Your task to perform on an android device: Open Android settings Image 0: 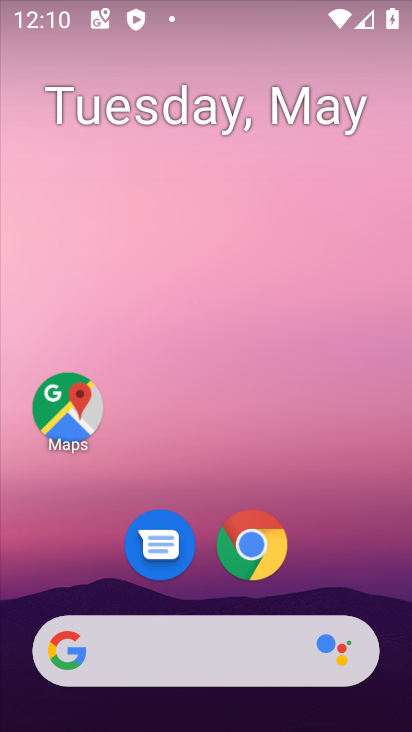
Step 0: drag from (207, 581) to (212, 4)
Your task to perform on an android device: Open Android settings Image 1: 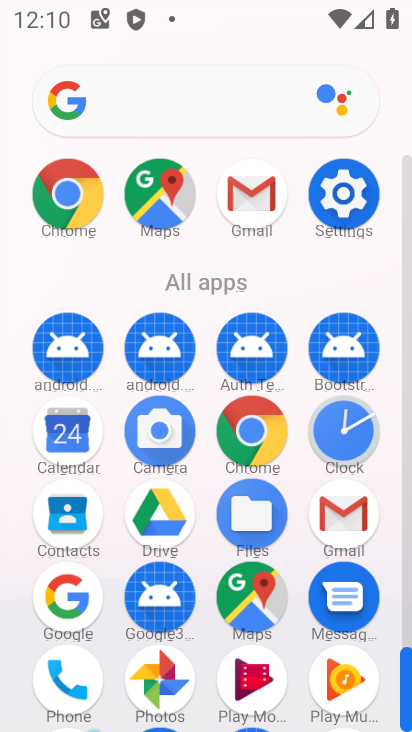
Step 1: click (370, 192)
Your task to perform on an android device: Open Android settings Image 2: 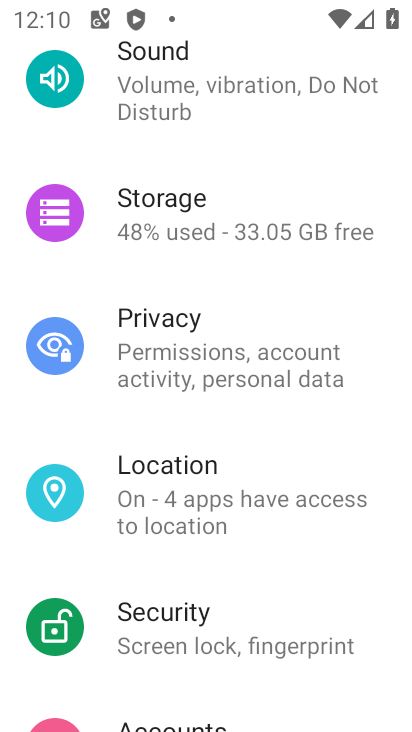
Step 2: task complete